Your task to perform on an android device: What's on my calendar today? Image 0: 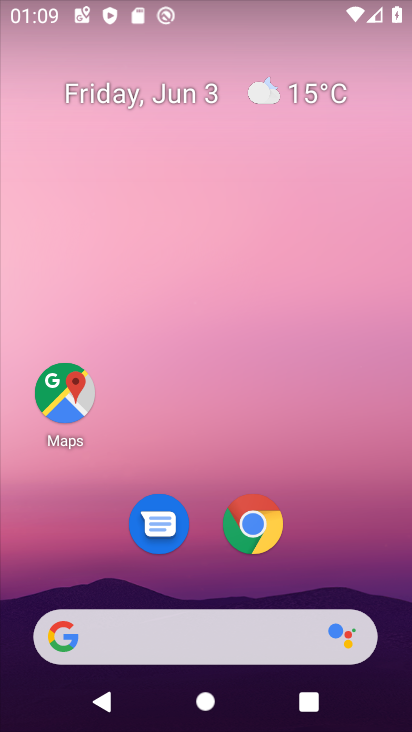
Step 0: drag from (243, 401) to (225, 1)
Your task to perform on an android device: What's on my calendar today? Image 1: 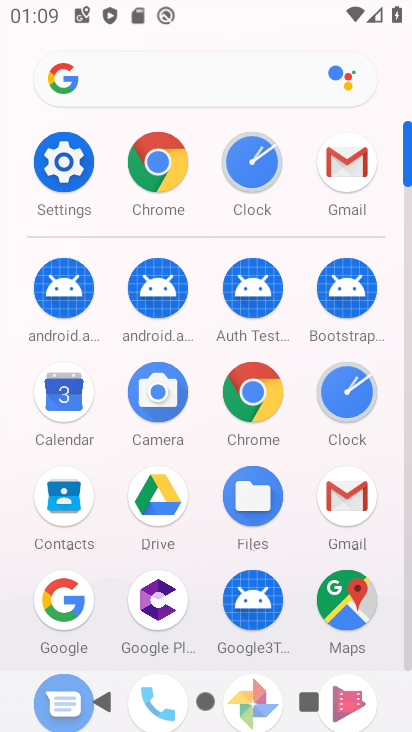
Step 1: click (70, 404)
Your task to perform on an android device: What's on my calendar today? Image 2: 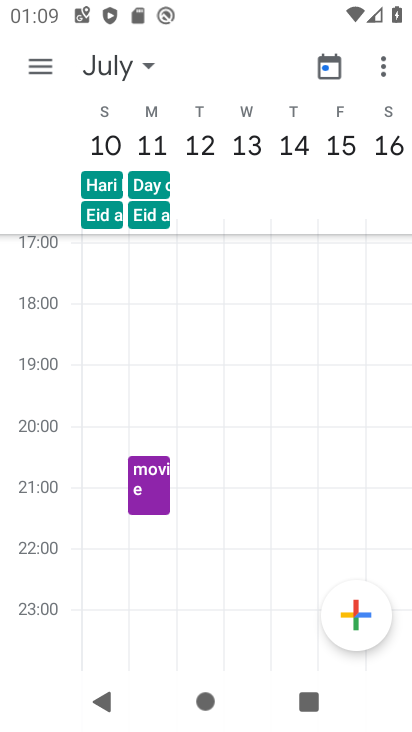
Step 2: click (37, 56)
Your task to perform on an android device: What's on my calendar today? Image 3: 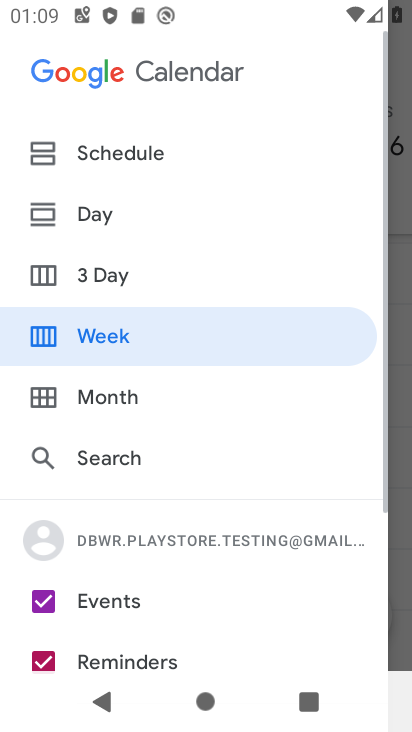
Step 3: click (43, 398)
Your task to perform on an android device: What's on my calendar today? Image 4: 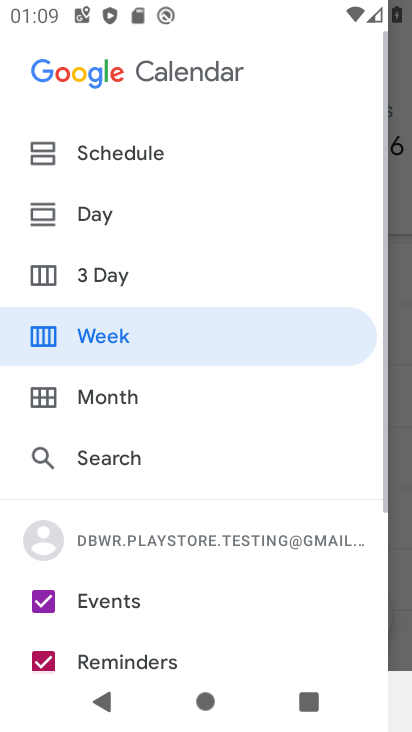
Step 4: click (43, 399)
Your task to perform on an android device: What's on my calendar today? Image 5: 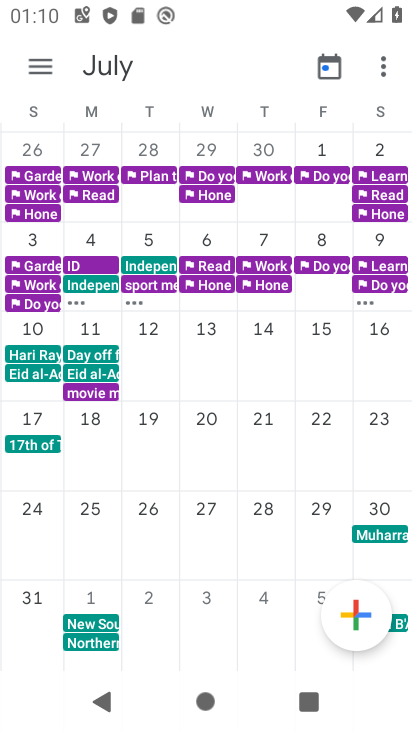
Step 5: drag from (26, 466) to (411, 506)
Your task to perform on an android device: What's on my calendar today? Image 6: 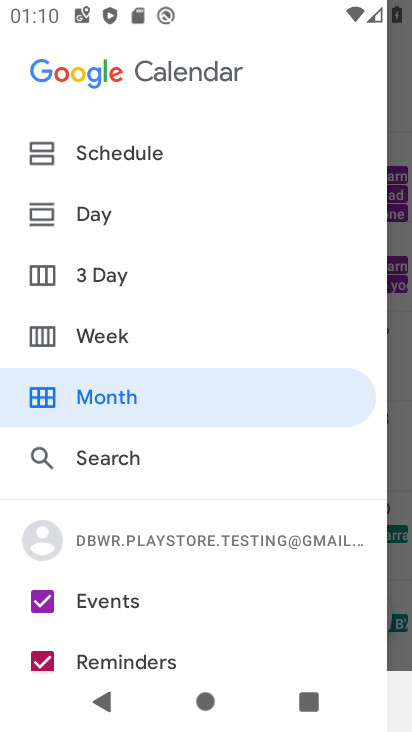
Step 6: click (397, 505)
Your task to perform on an android device: What's on my calendar today? Image 7: 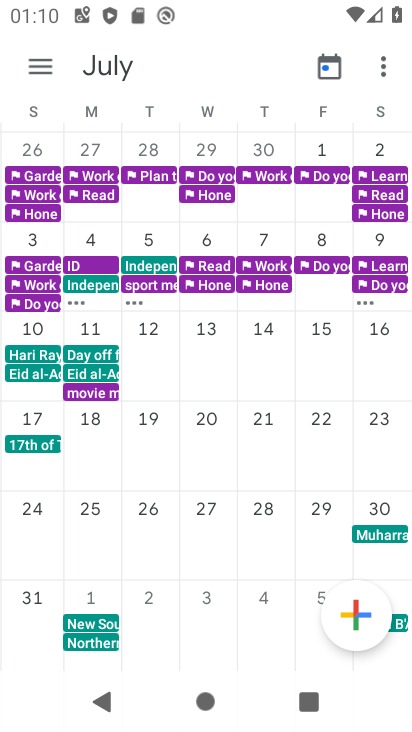
Step 7: drag from (33, 455) to (411, 502)
Your task to perform on an android device: What's on my calendar today? Image 8: 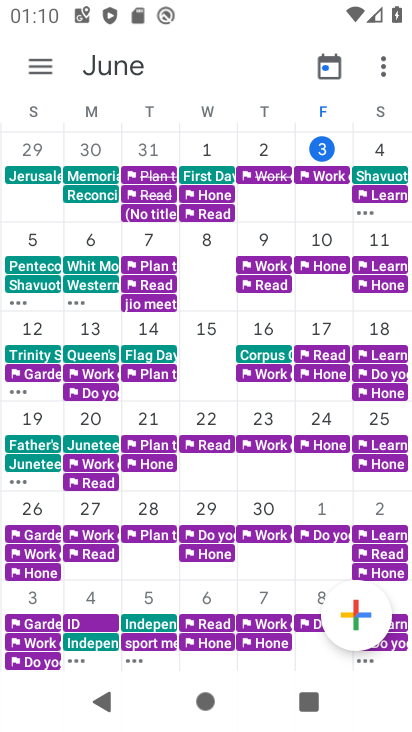
Step 8: click (314, 139)
Your task to perform on an android device: What's on my calendar today? Image 9: 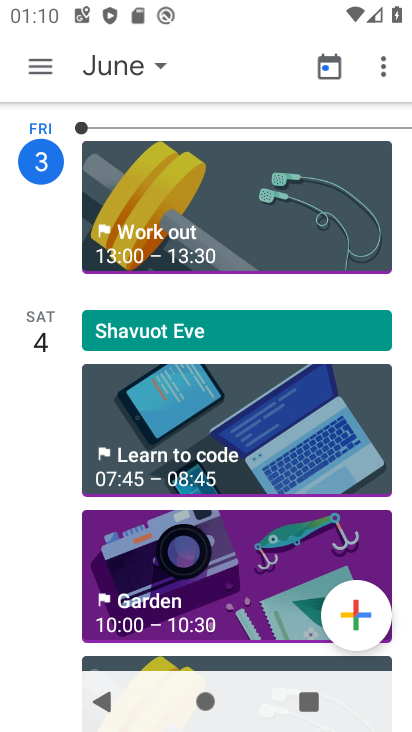
Step 9: task complete